Your task to perform on an android device: turn on the 12-hour format for clock Image 0: 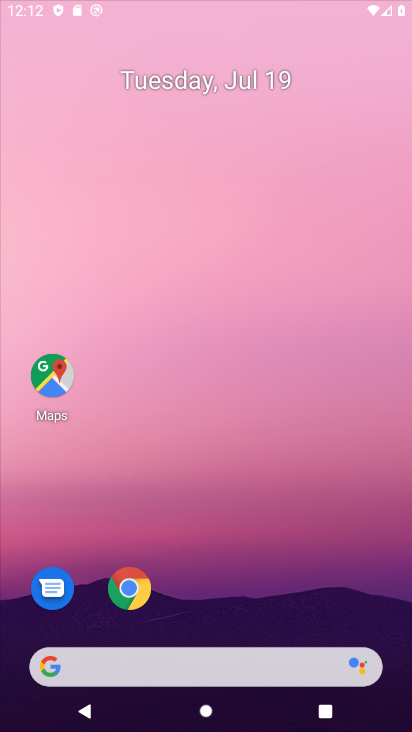
Step 0: press home button
Your task to perform on an android device: turn on the 12-hour format for clock Image 1: 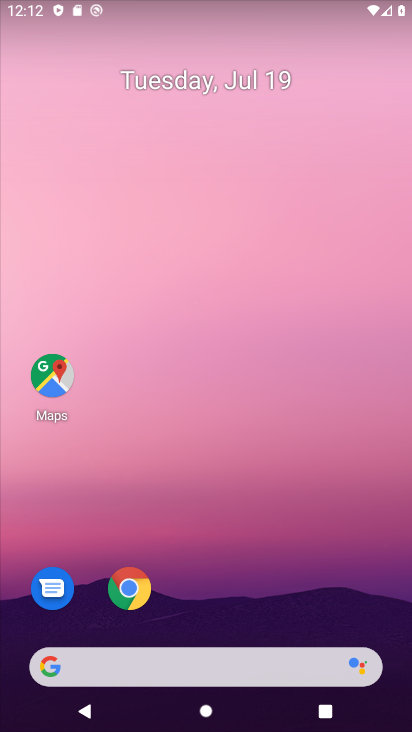
Step 1: drag from (239, 625) to (189, 187)
Your task to perform on an android device: turn on the 12-hour format for clock Image 2: 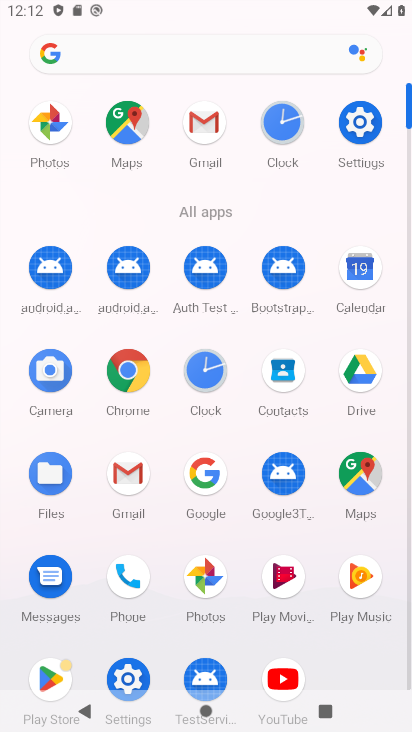
Step 2: click (286, 115)
Your task to perform on an android device: turn on the 12-hour format for clock Image 3: 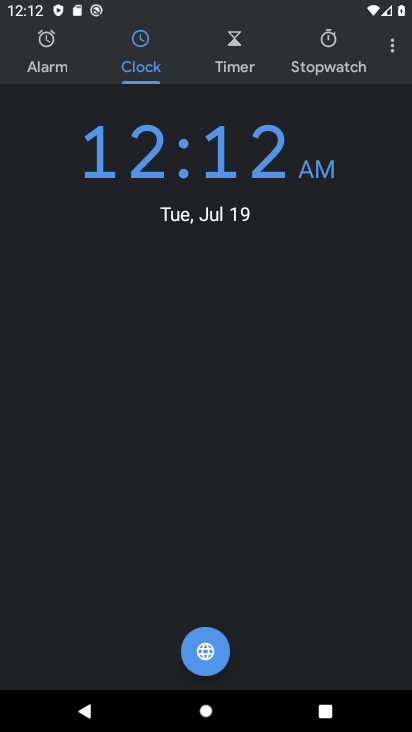
Step 3: click (397, 51)
Your task to perform on an android device: turn on the 12-hour format for clock Image 4: 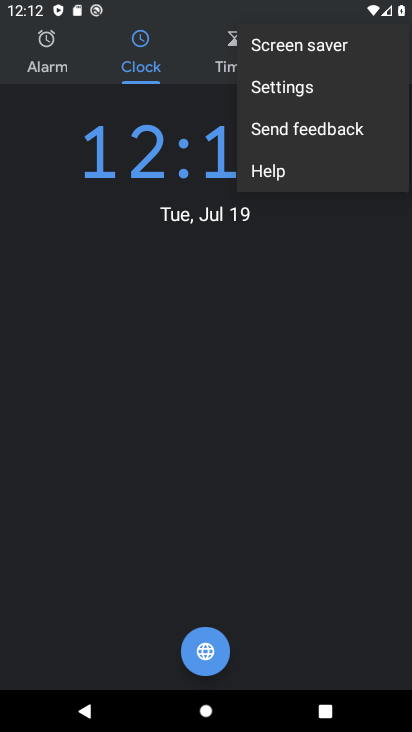
Step 4: click (331, 88)
Your task to perform on an android device: turn on the 12-hour format for clock Image 5: 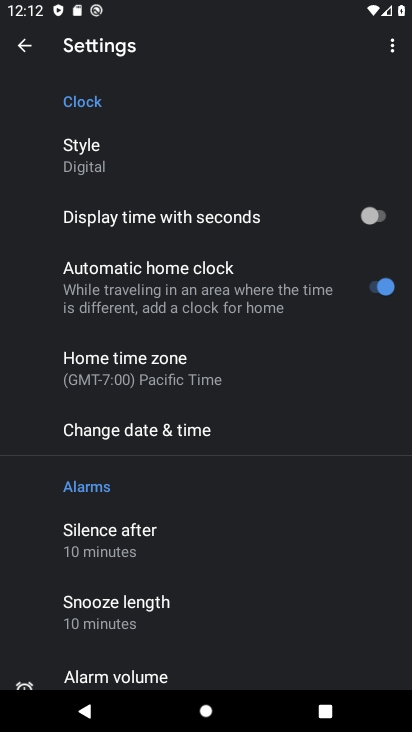
Step 5: click (220, 447)
Your task to perform on an android device: turn on the 12-hour format for clock Image 6: 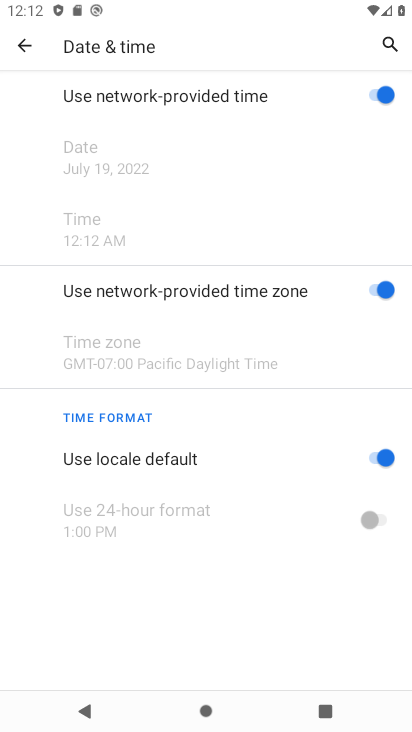
Step 6: task complete